Your task to perform on an android device: Show me productivity apps on the Play Store Image 0: 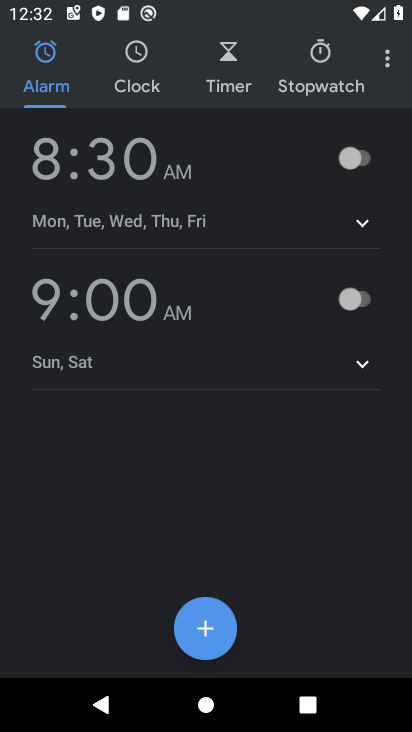
Step 0: press home button
Your task to perform on an android device: Show me productivity apps on the Play Store Image 1: 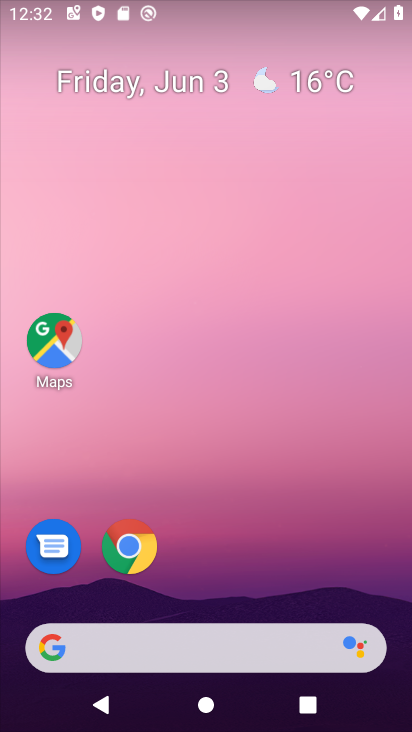
Step 1: drag from (271, 559) to (219, 26)
Your task to perform on an android device: Show me productivity apps on the Play Store Image 2: 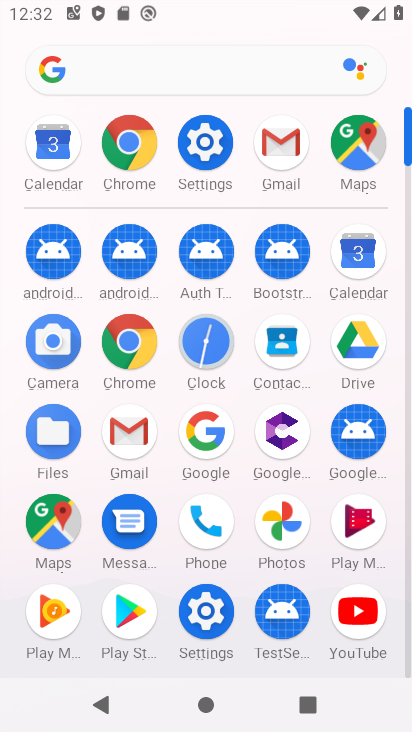
Step 2: click (132, 619)
Your task to perform on an android device: Show me productivity apps on the Play Store Image 3: 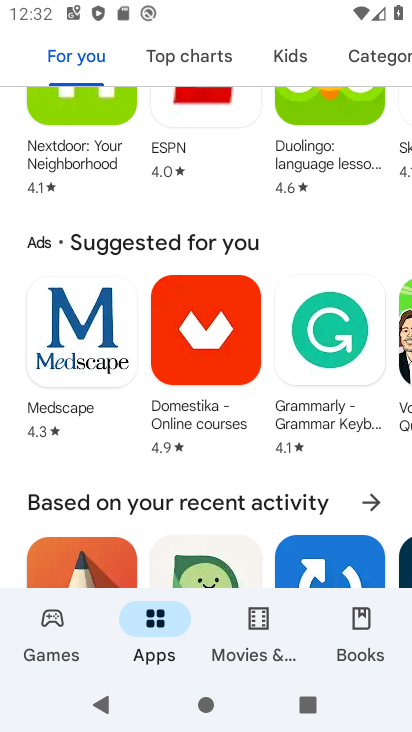
Step 3: task complete